Your task to perform on an android device: Turn off the flashlight Image 0: 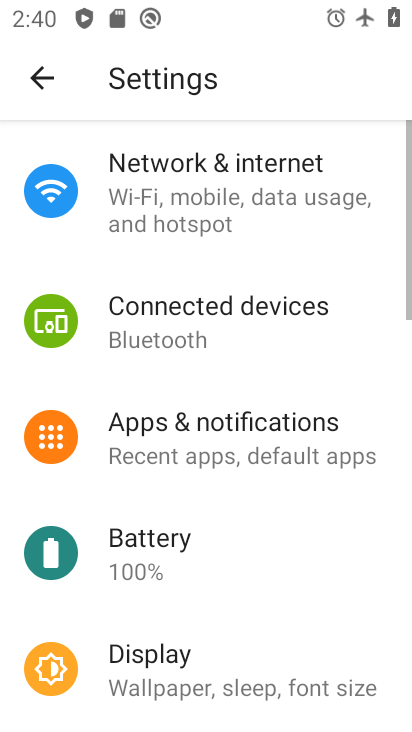
Step 0: press home button
Your task to perform on an android device: Turn off the flashlight Image 1: 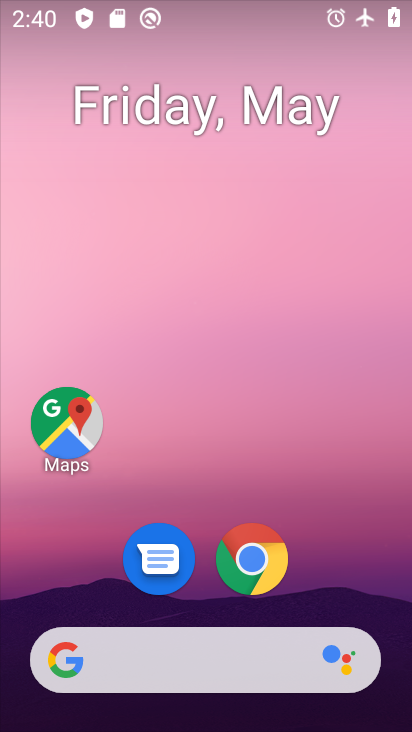
Step 1: click (335, 229)
Your task to perform on an android device: Turn off the flashlight Image 2: 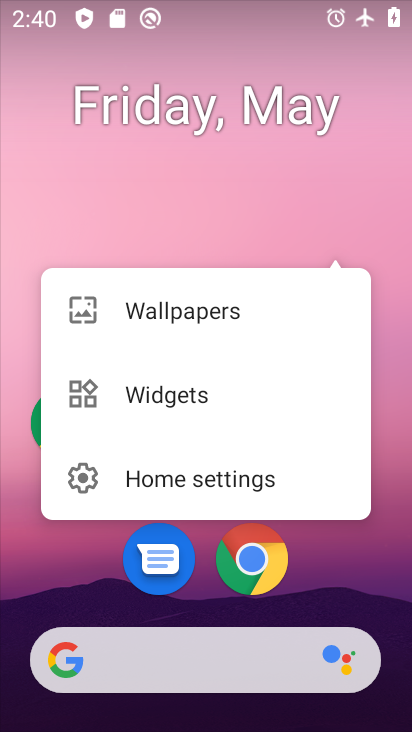
Step 2: click (329, 216)
Your task to perform on an android device: Turn off the flashlight Image 3: 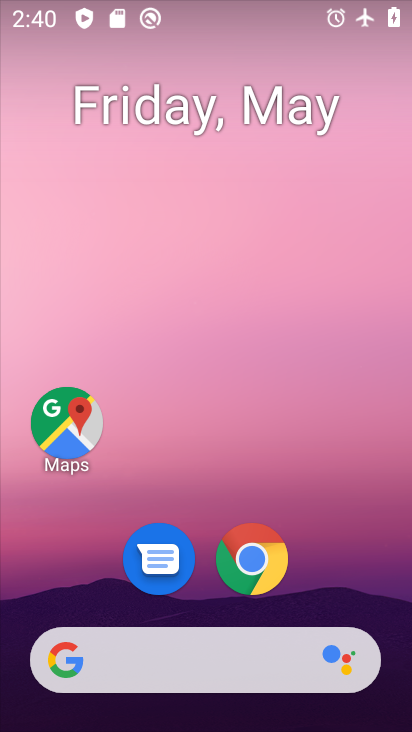
Step 3: drag from (332, 571) to (307, 77)
Your task to perform on an android device: Turn off the flashlight Image 4: 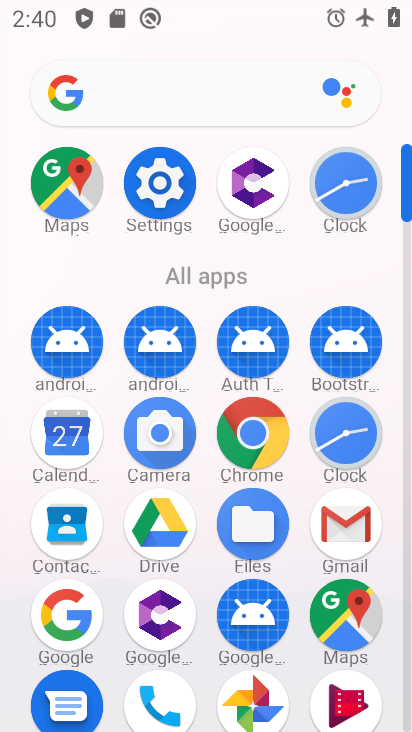
Step 4: click (162, 208)
Your task to perform on an android device: Turn off the flashlight Image 5: 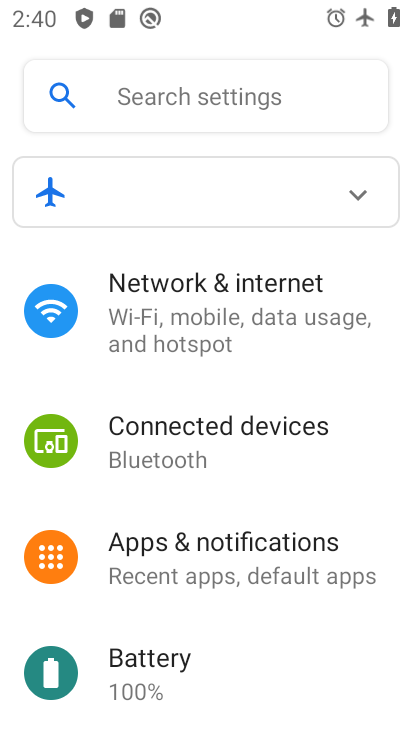
Step 5: task complete